Your task to perform on an android device: empty trash in the gmail app Image 0: 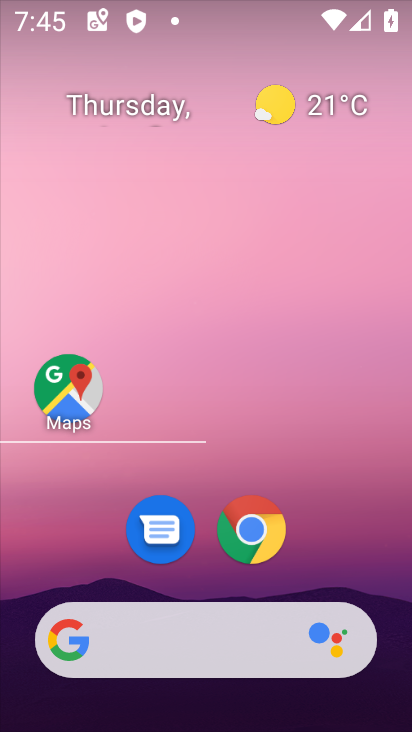
Step 0: click (229, 104)
Your task to perform on an android device: empty trash in the gmail app Image 1: 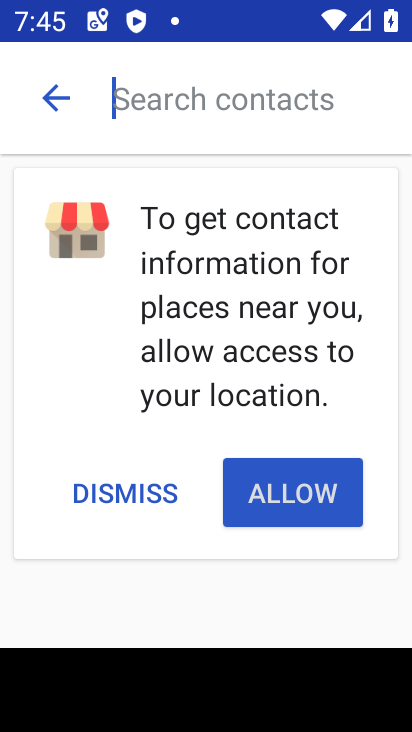
Step 1: press home button
Your task to perform on an android device: empty trash in the gmail app Image 2: 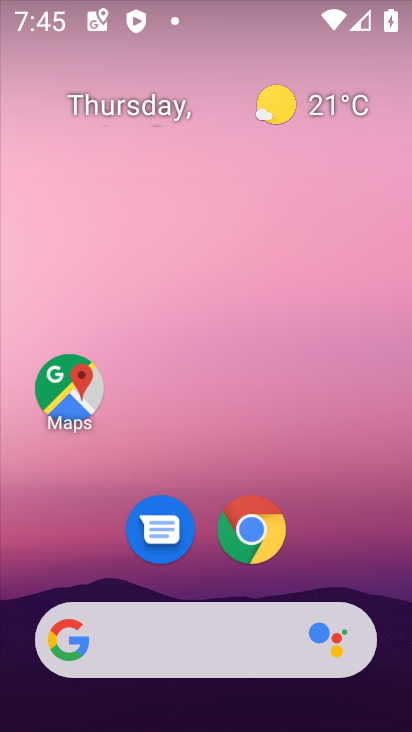
Step 2: drag from (226, 678) to (282, 175)
Your task to perform on an android device: empty trash in the gmail app Image 3: 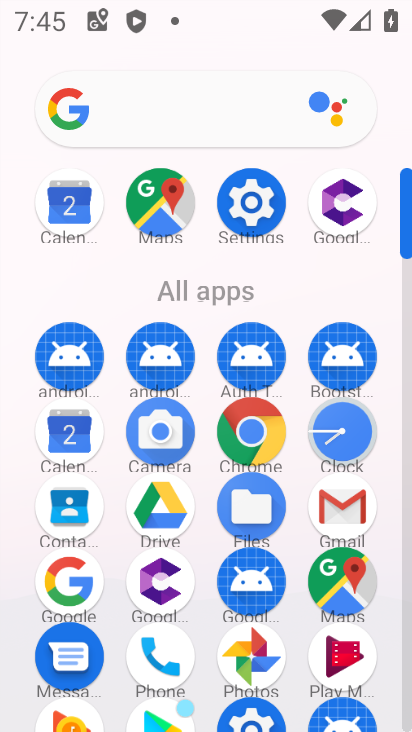
Step 3: click (337, 515)
Your task to perform on an android device: empty trash in the gmail app Image 4: 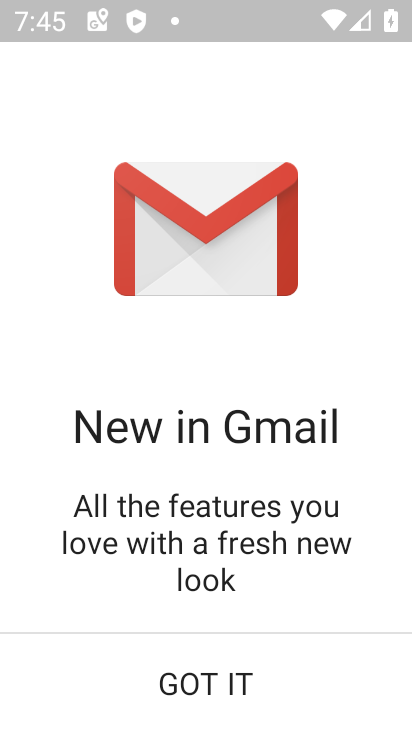
Step 4: click (241, 658)
Your task to perform on an android device: empty trash in the gmail app Image 5: 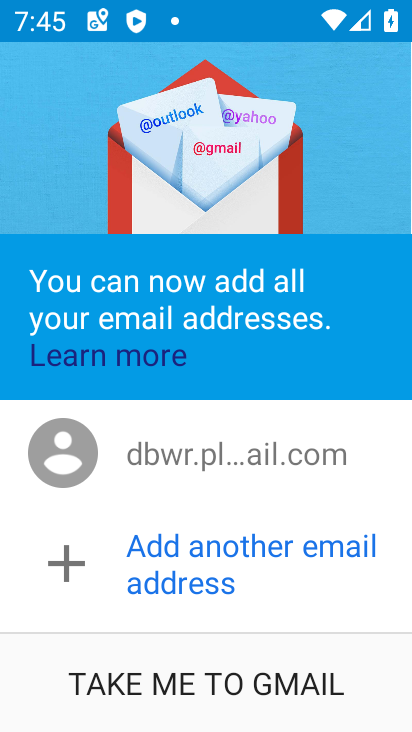
Step 5: click (244, 675)
Your task to perform on an android device: empty trash in the gmail app Image 6: 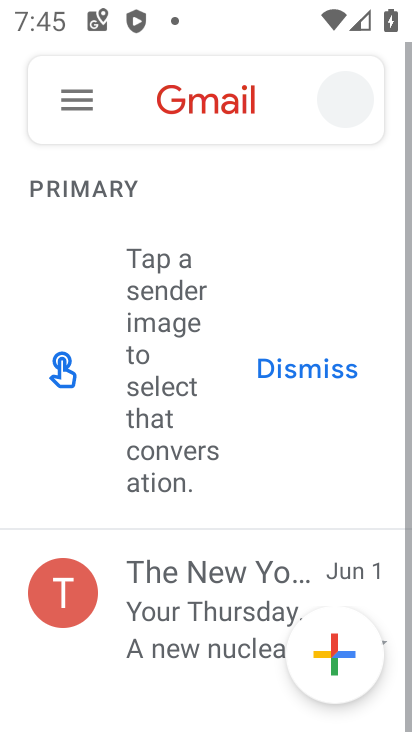
Step 6: click (59, 101)
Your task to perform on an android device: empty trash in the gmail app Image 7: 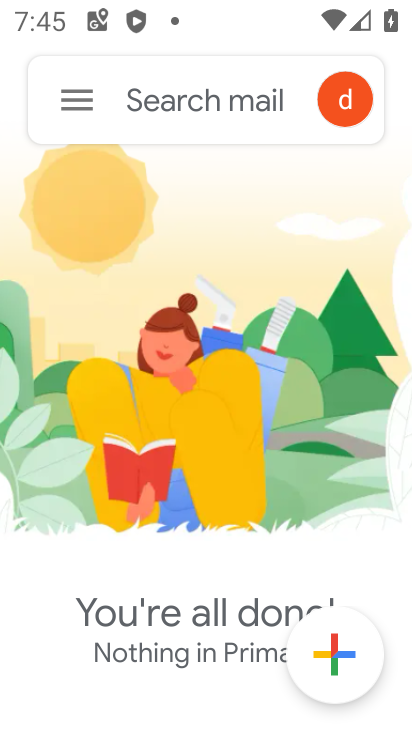
Step 7: click (78, 90)
Your task to perform on an android device: empty trash in the gmail app Image 8: 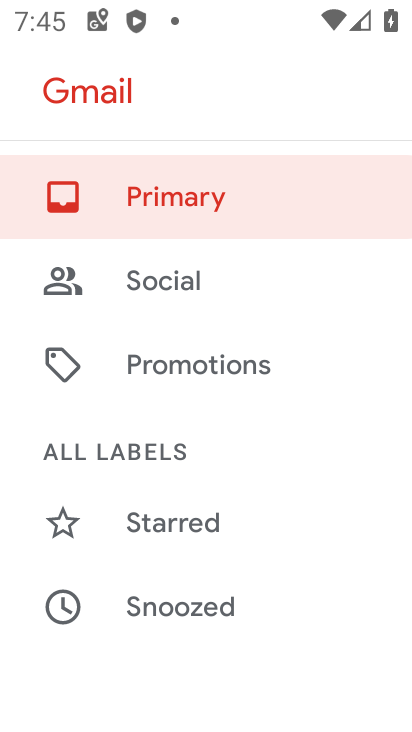
Step 8: drag from (326, 448) to (282, 39)
Your task to perform on an android device: empty trash in the gmail app Image 9: 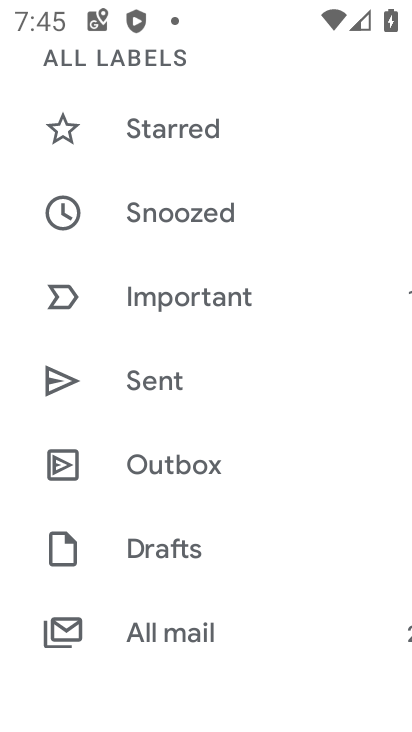
Step 9: drag from (268, 456) to (282, 270)
Your task to perform on an android device: empty trash in the gmail app Image 10: 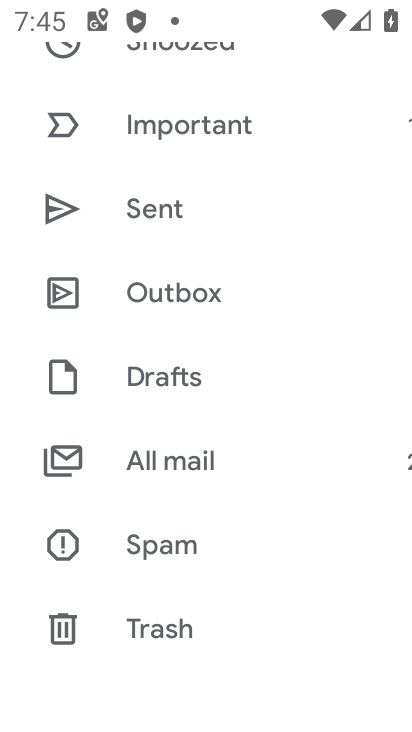
Step 10: drag from (229, 628) to (181, 470)
Your task to perform on an android device: empty trash in the gmail app Image 11: 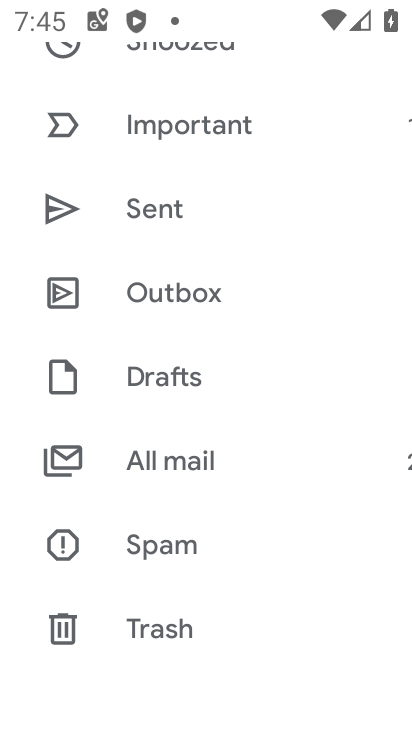
Step 11: click (182, 618)
Your task to perform on an android device: empty trash in the gmail app Image 12: 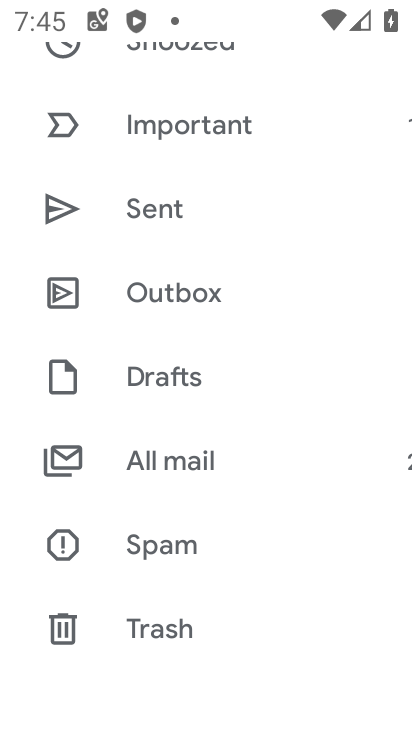
Step 12: click (182, 618)
Your task to perform on an android device: empty trash in the gmail app Image 13: 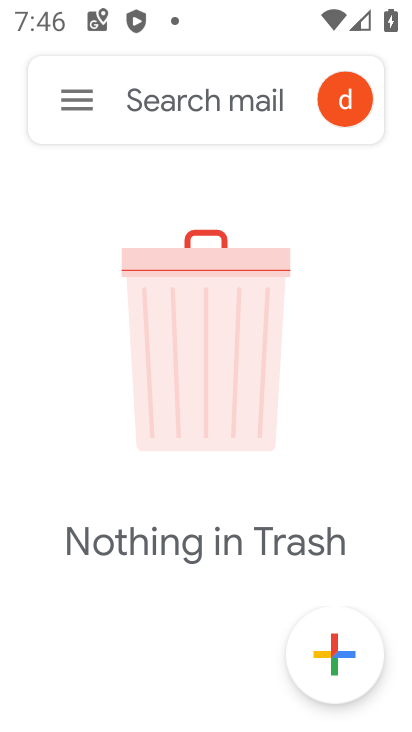
Step 13: task complete